Your task to perform on an android device: toggle airplane mode Image 0: 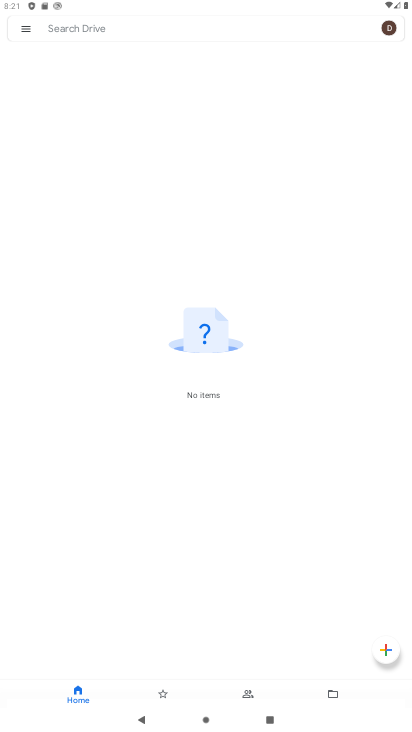
Step 0: press home button
Your task to perform on an android device: toggle airplane mode Image 1: 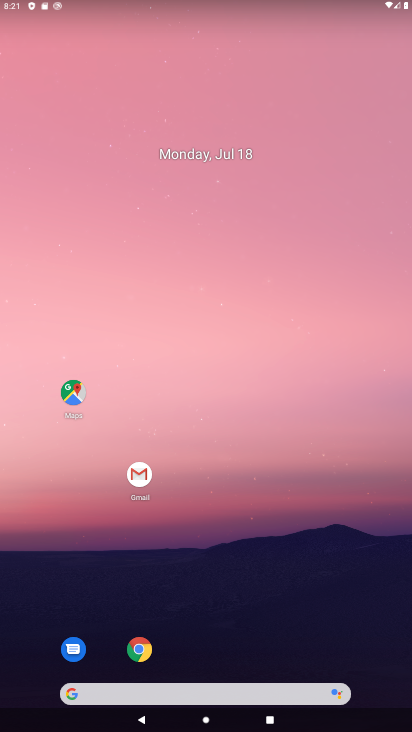
Step 1: drag from (294, 1) to (276, 226)
Your task to perform on an android device: toggle airplane mode Image 2: 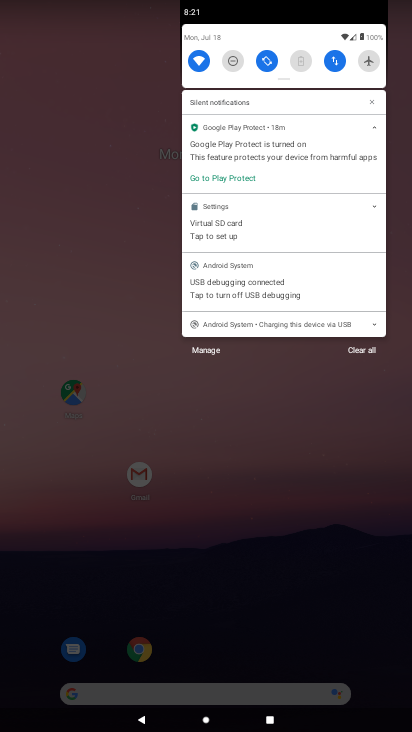
Step 2: click (362, 57)
Your task to perform on an android device: toggle airplane mode Image 3: 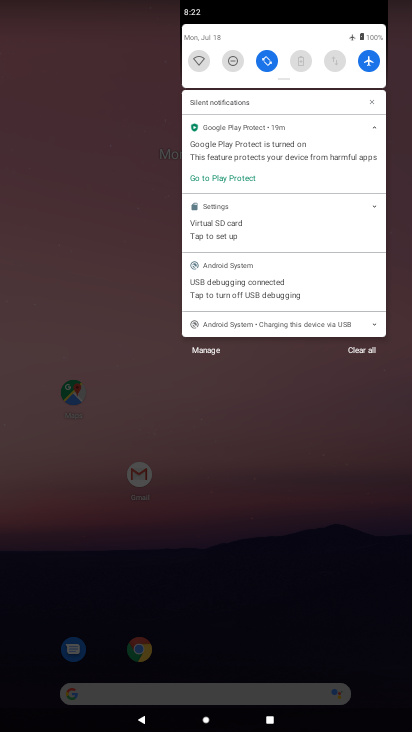
Step 3: task complete